Your task to perform on an android device: Install the ESPN app Image 0: 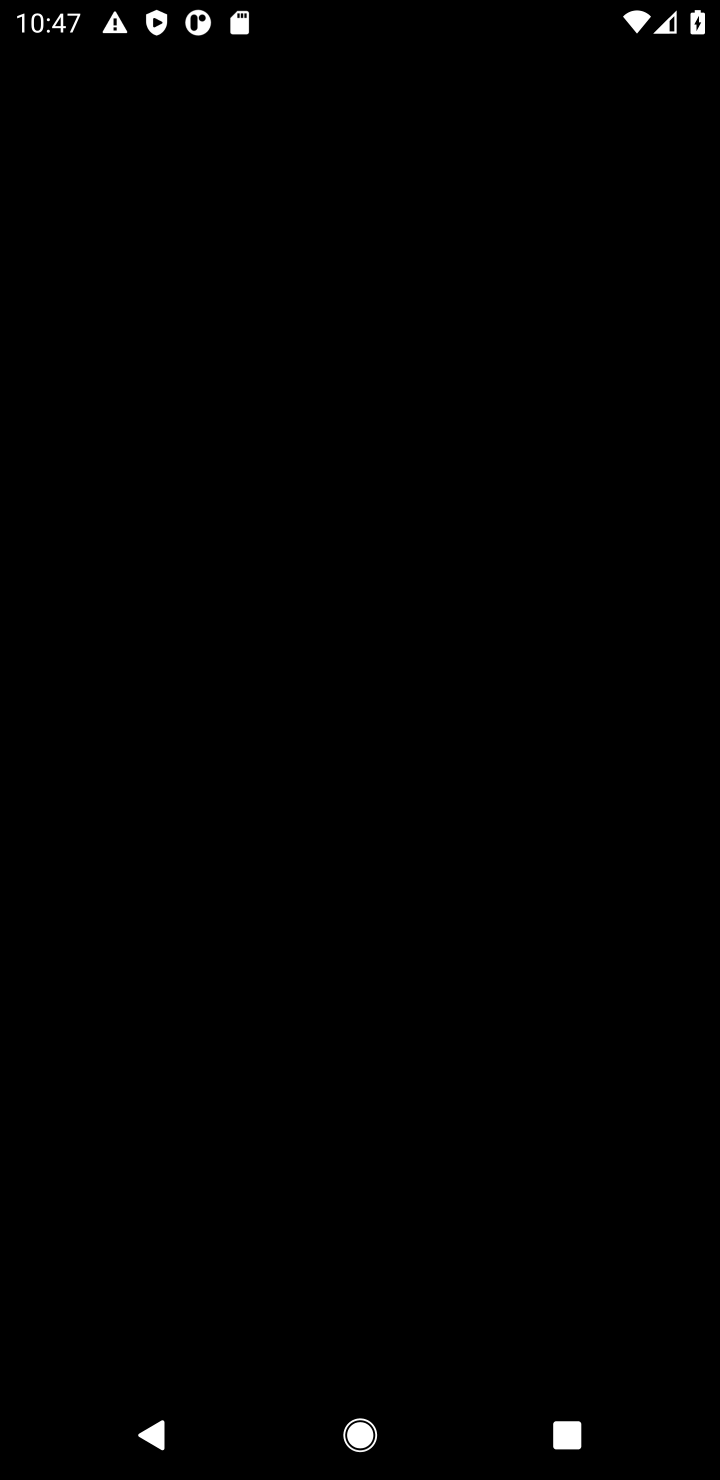
Step 0: click (40, 88)
Your task to perform on an android device: Install the ESPN app Image 1: 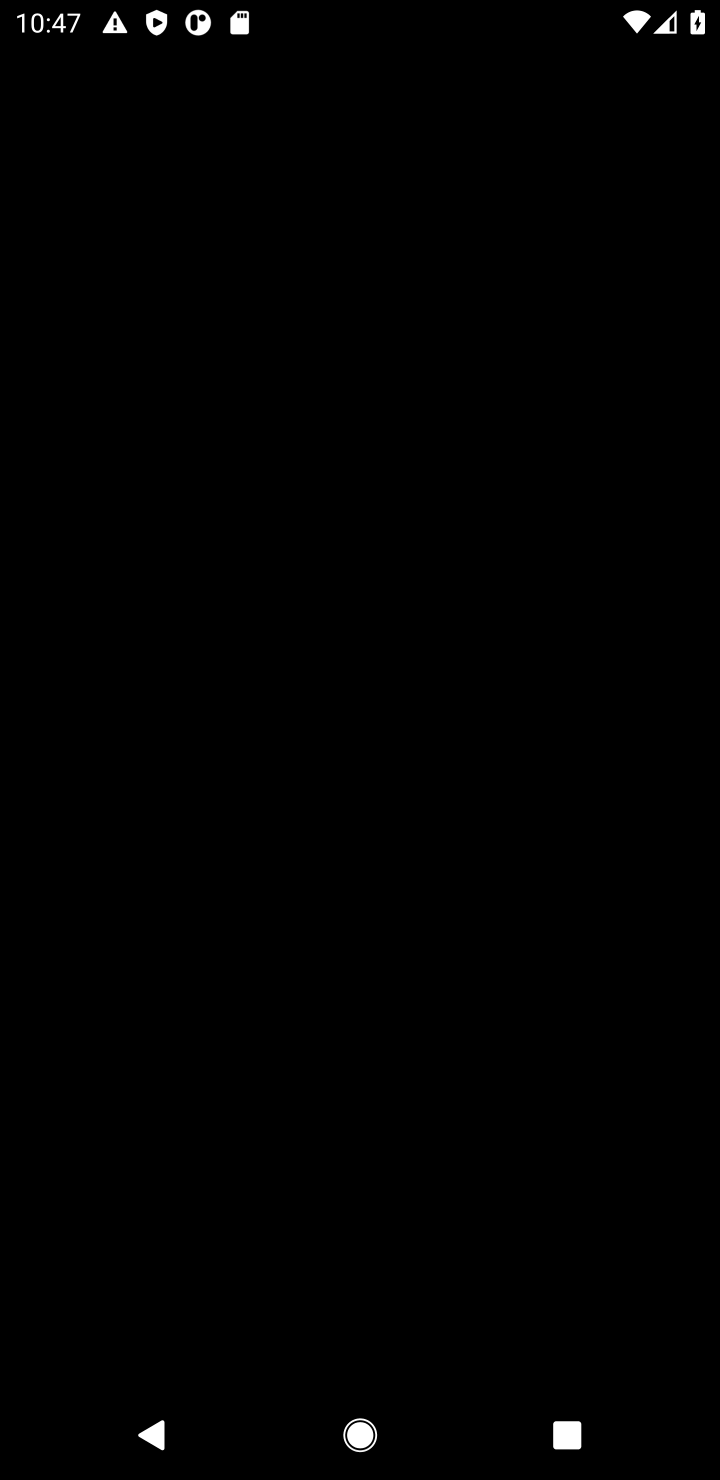
Step 1: press home button
Your task to perform on an android device: Install the ESPN app Image 2: 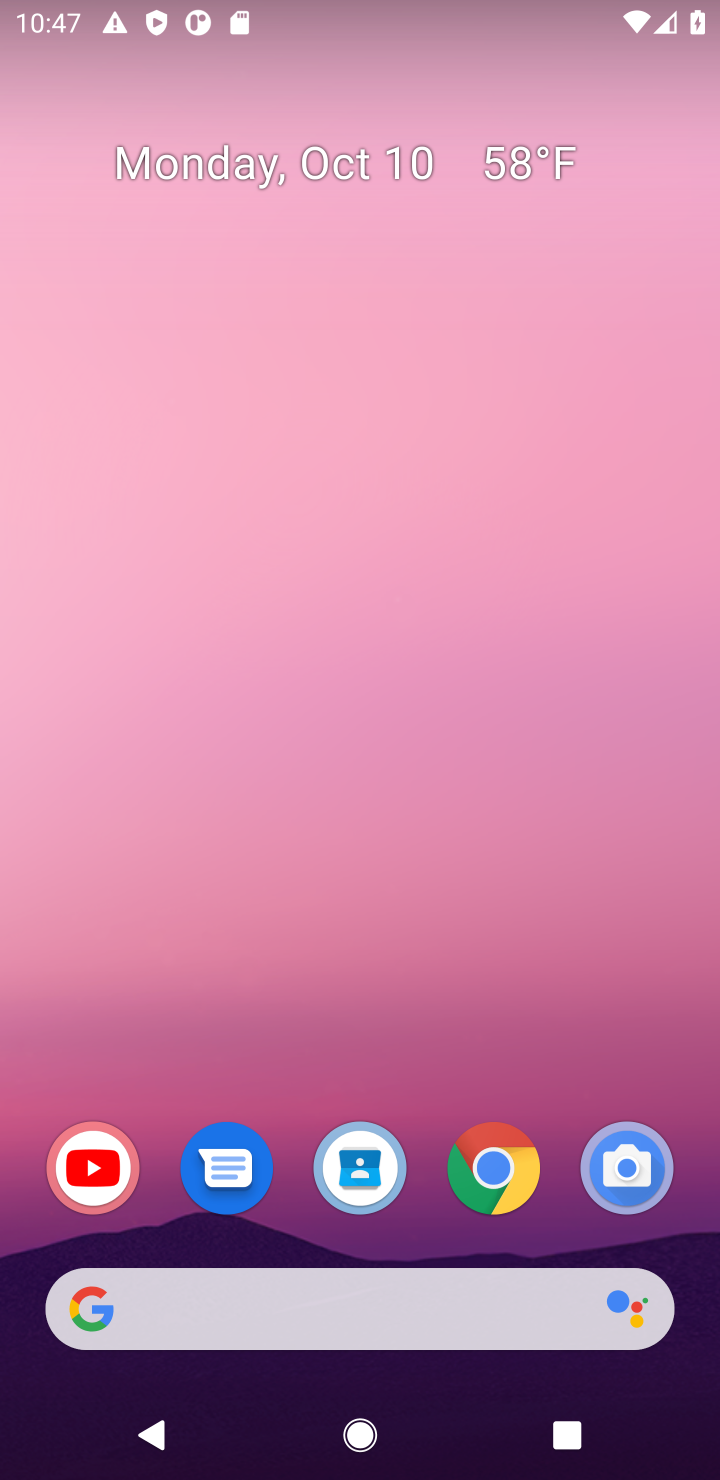
Step 2: drag from (326, 919) to (295, 344)
Your task to perform on an android device: Install the ESPN app Image 3: 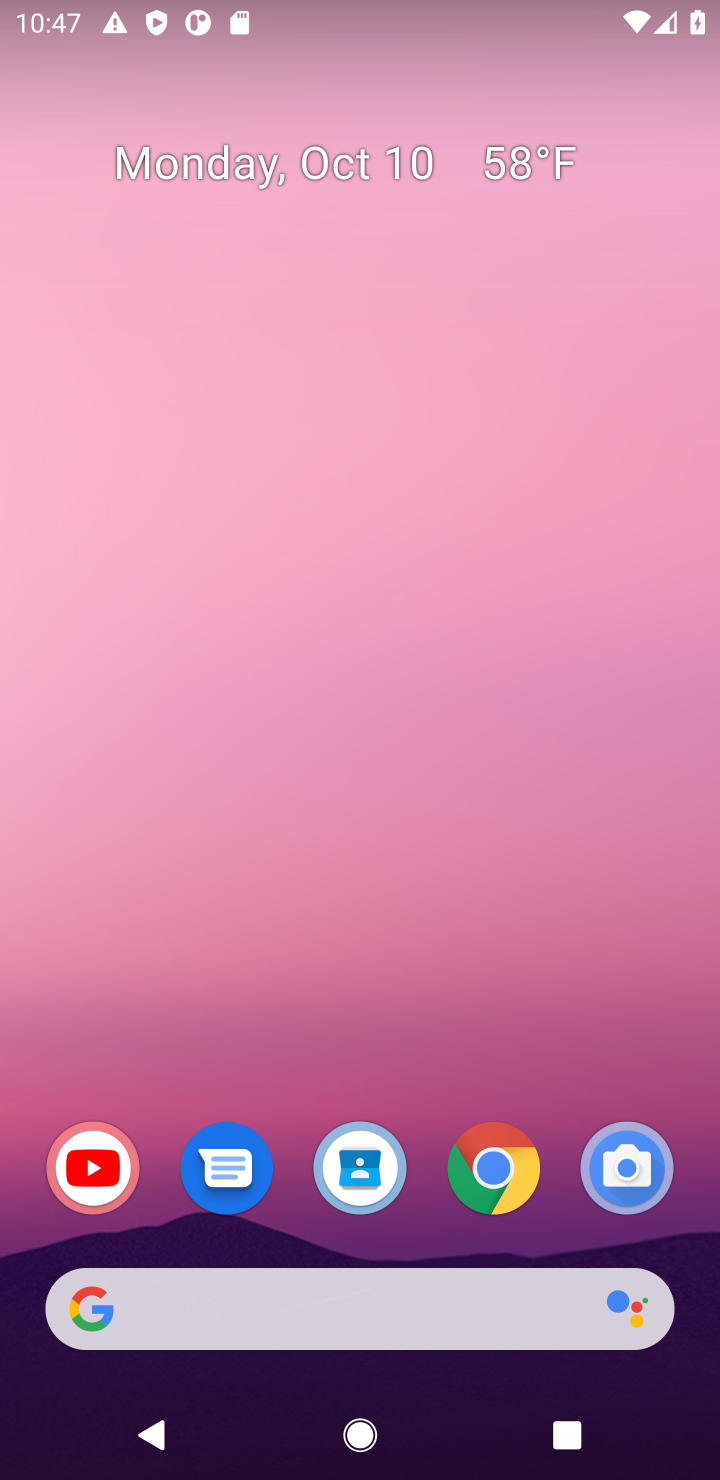
Step 3: drag from (424, 870) to (459, 200)
Your task to perform on an android device: Install the ESPN app Image 4: 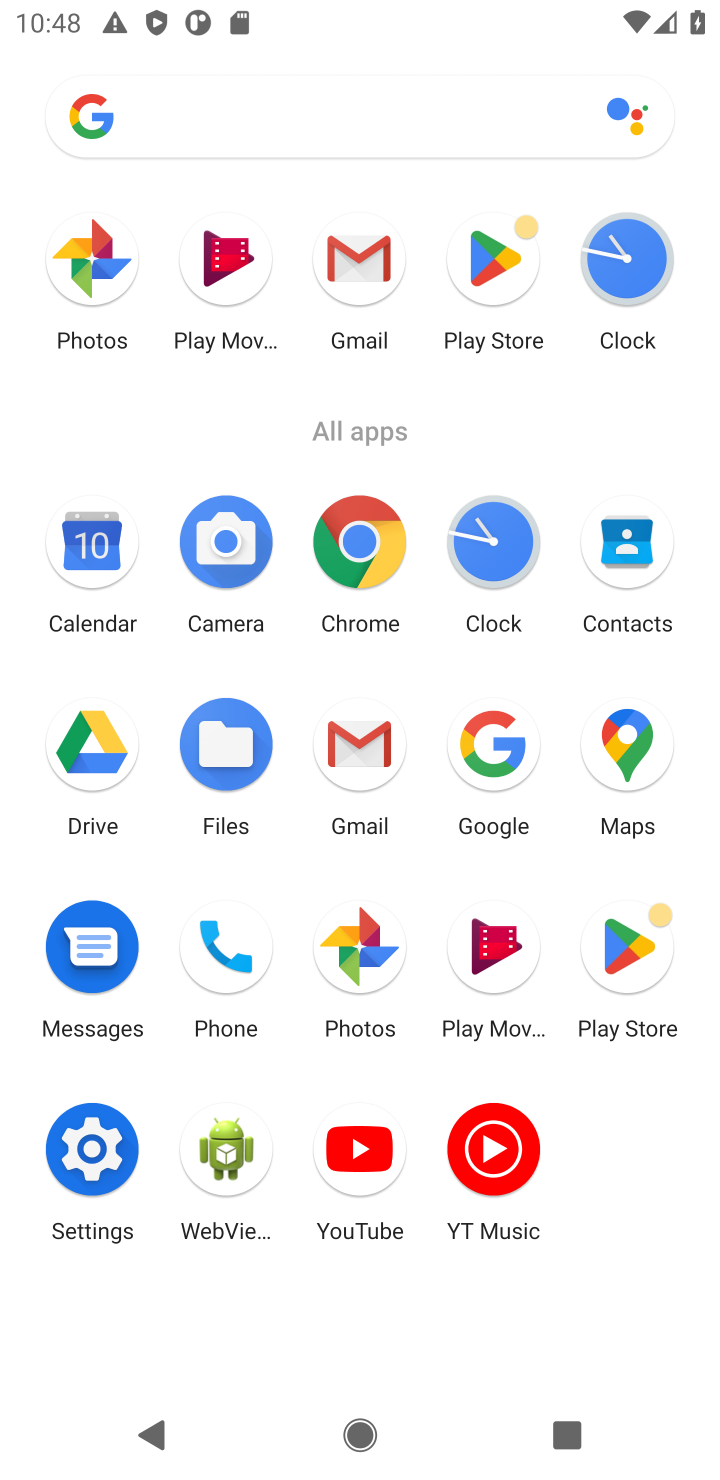
Step 4: click (482, 273)
Your task to perform on an android device: Install the ESPN app Image 5: 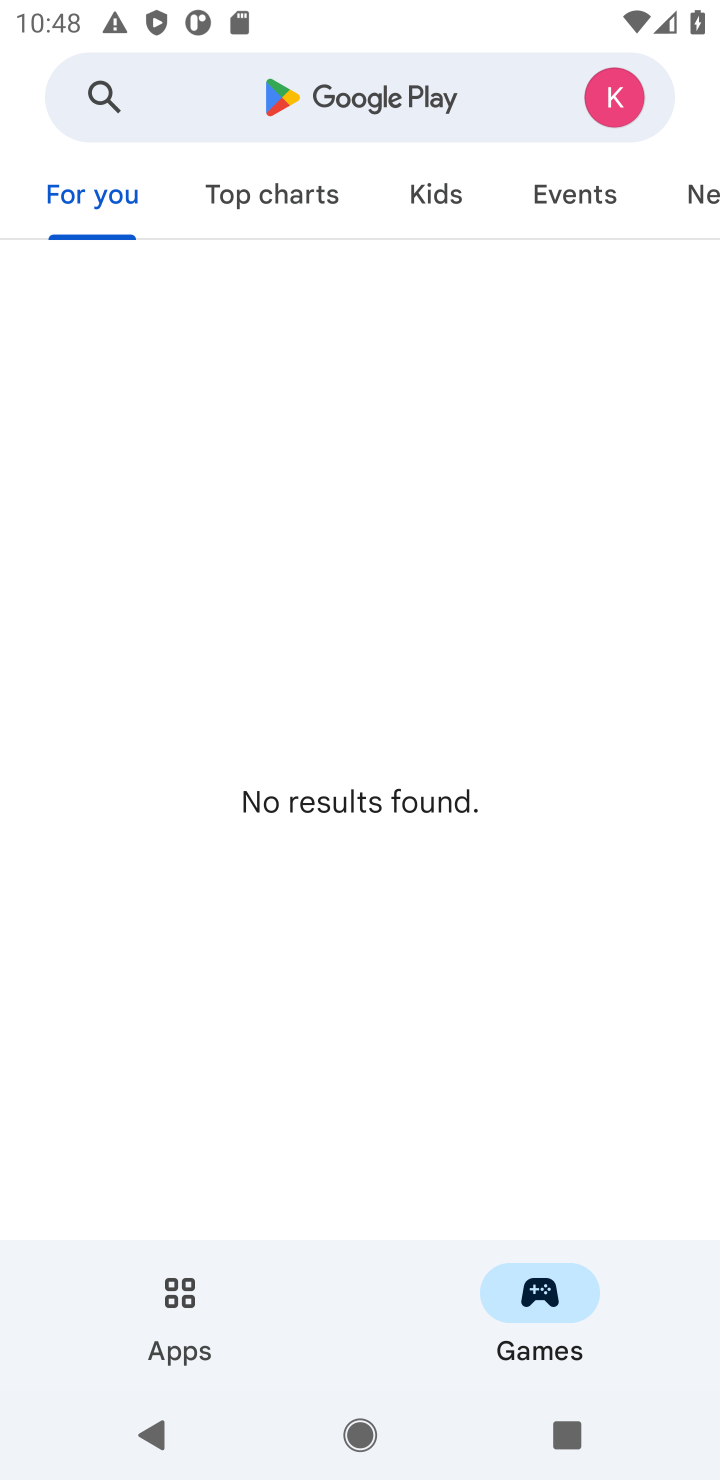
Step 5: click (313, 95)
Your task to perform on an android device: Install the ESPN app Image 6: 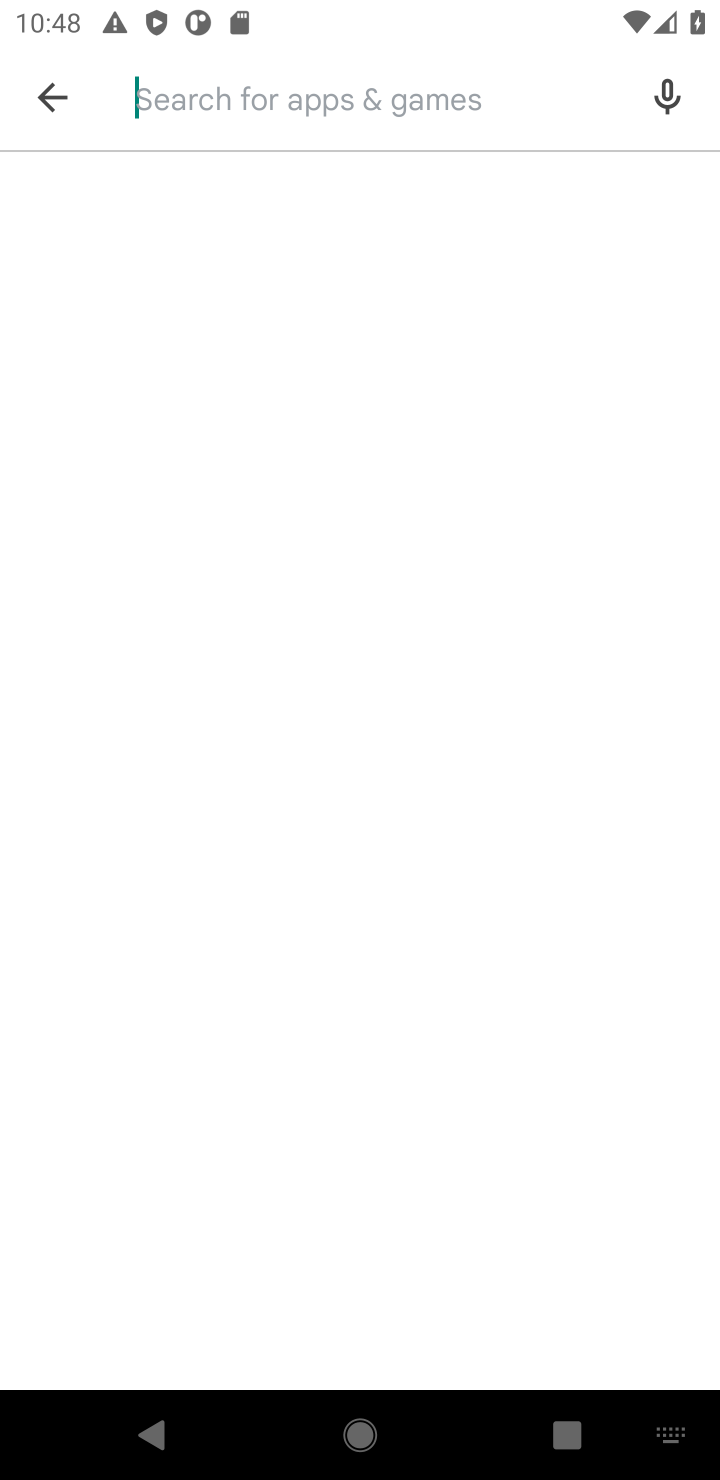
Step 6: type "ESPN app"
Your task to perform on an android device: Install the ESPN app Image 7: 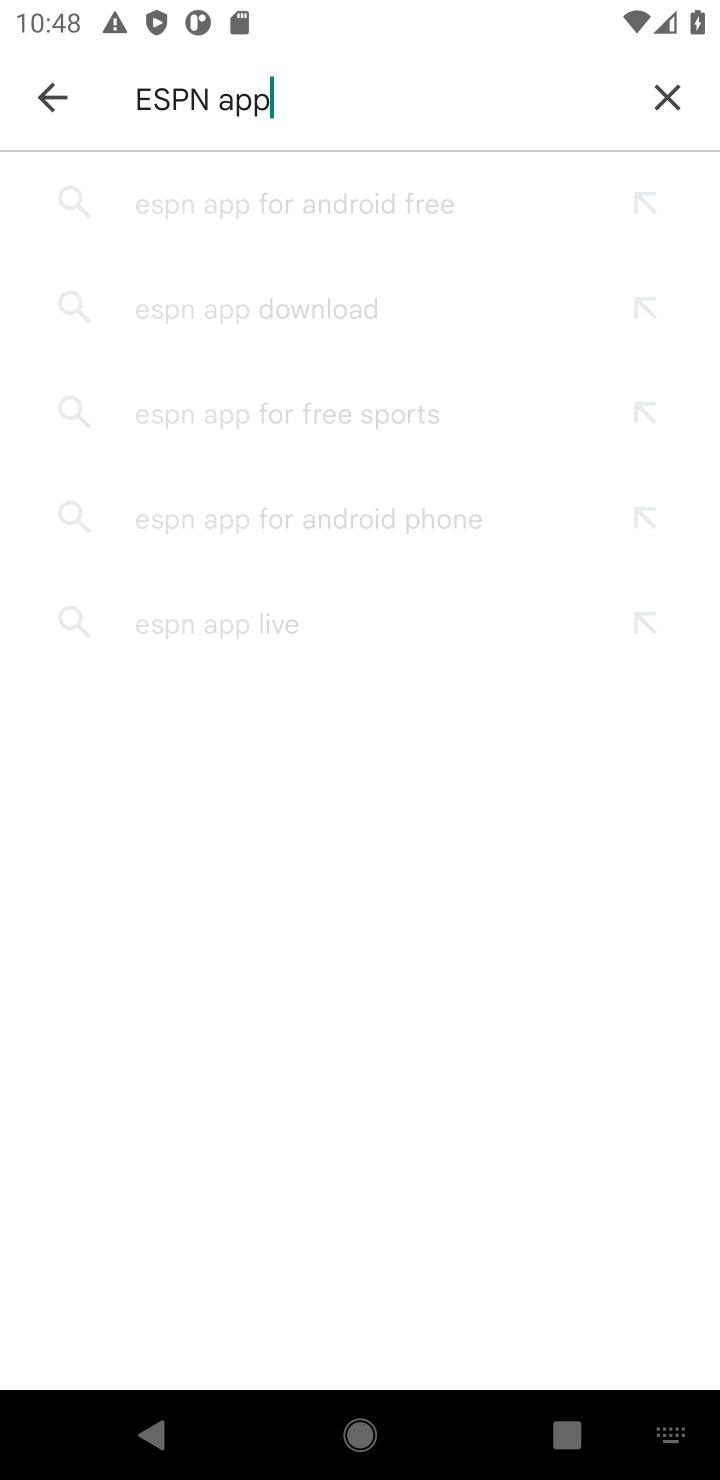
Step 7: type ""
Your task to perform on an android device: Install the ESPN app Image 8: 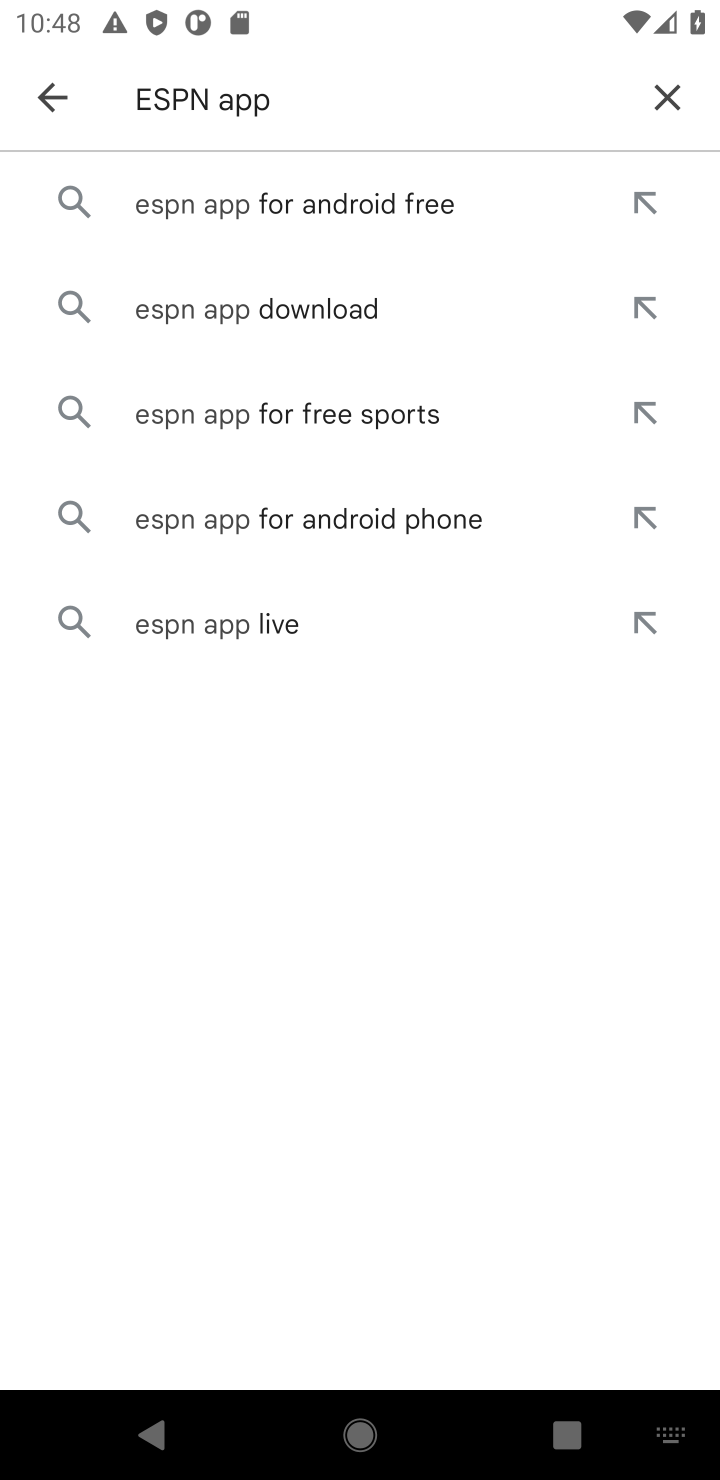
Step 8: click (445, 301)
Your task to perform on an android device: Install the ESPN app Image 9: 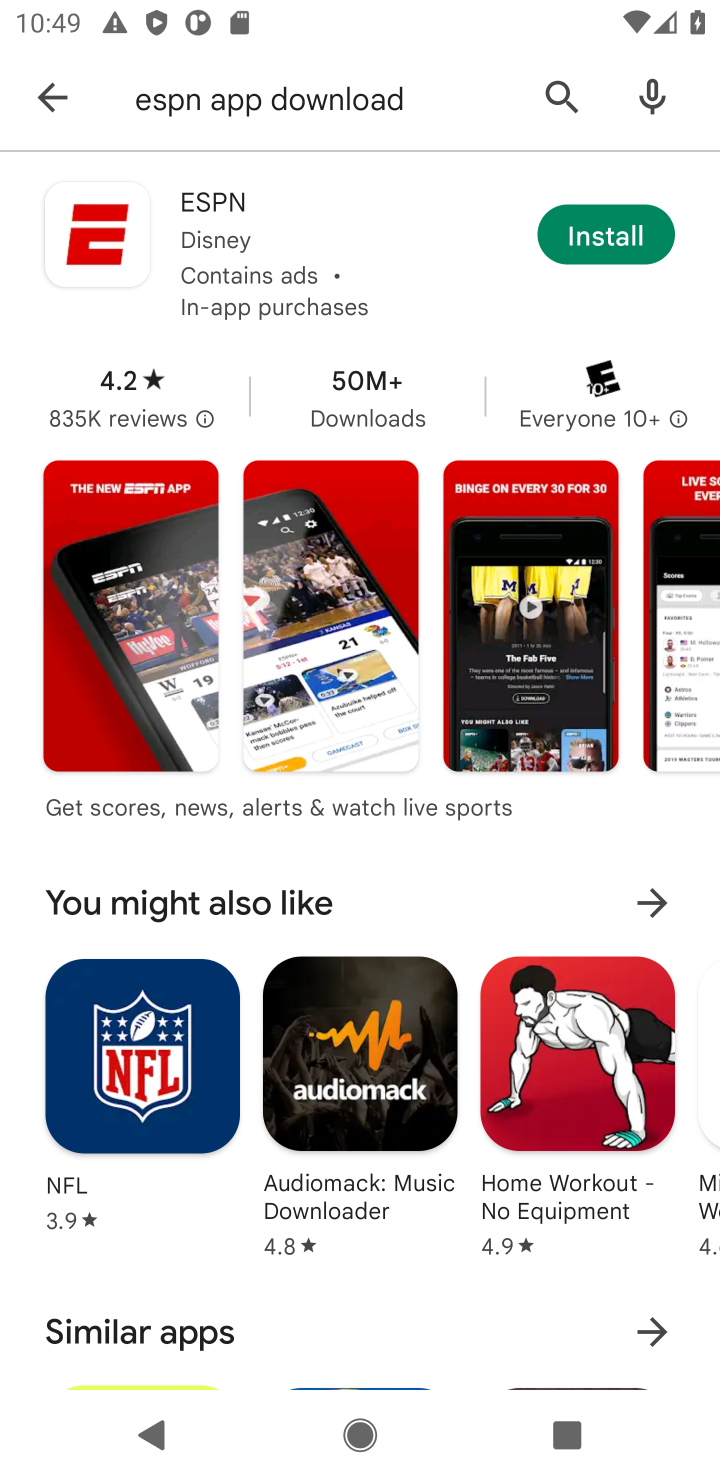
Step 9: click (573, 224)
Your task to perform on an android device: Install the ESPN app Image 10: 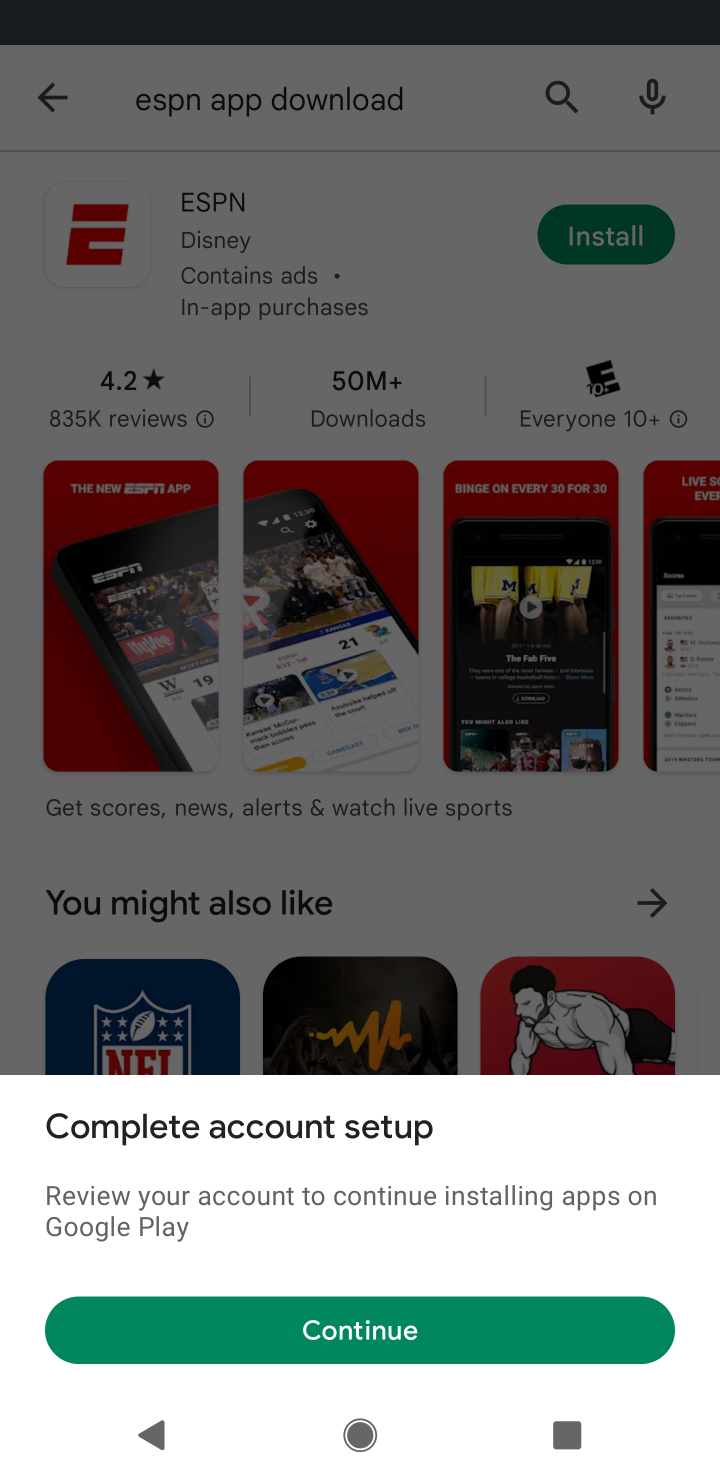
Step 10: click (321, 1316)
Your task to perform on an android device: Install the ESPN app Image 11: 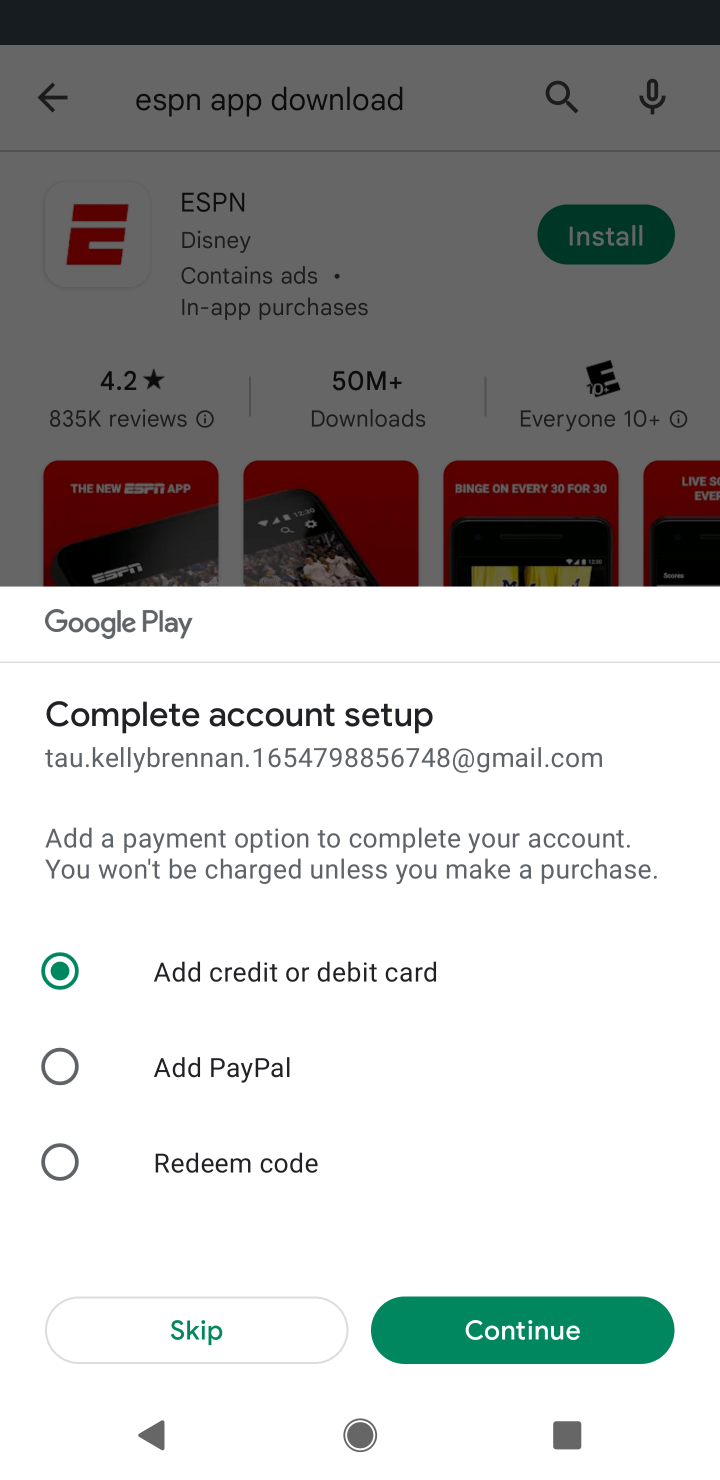
Step 11: click (313, 1313)
Your task to perform on an android device: Install the ESPN app Image 12: 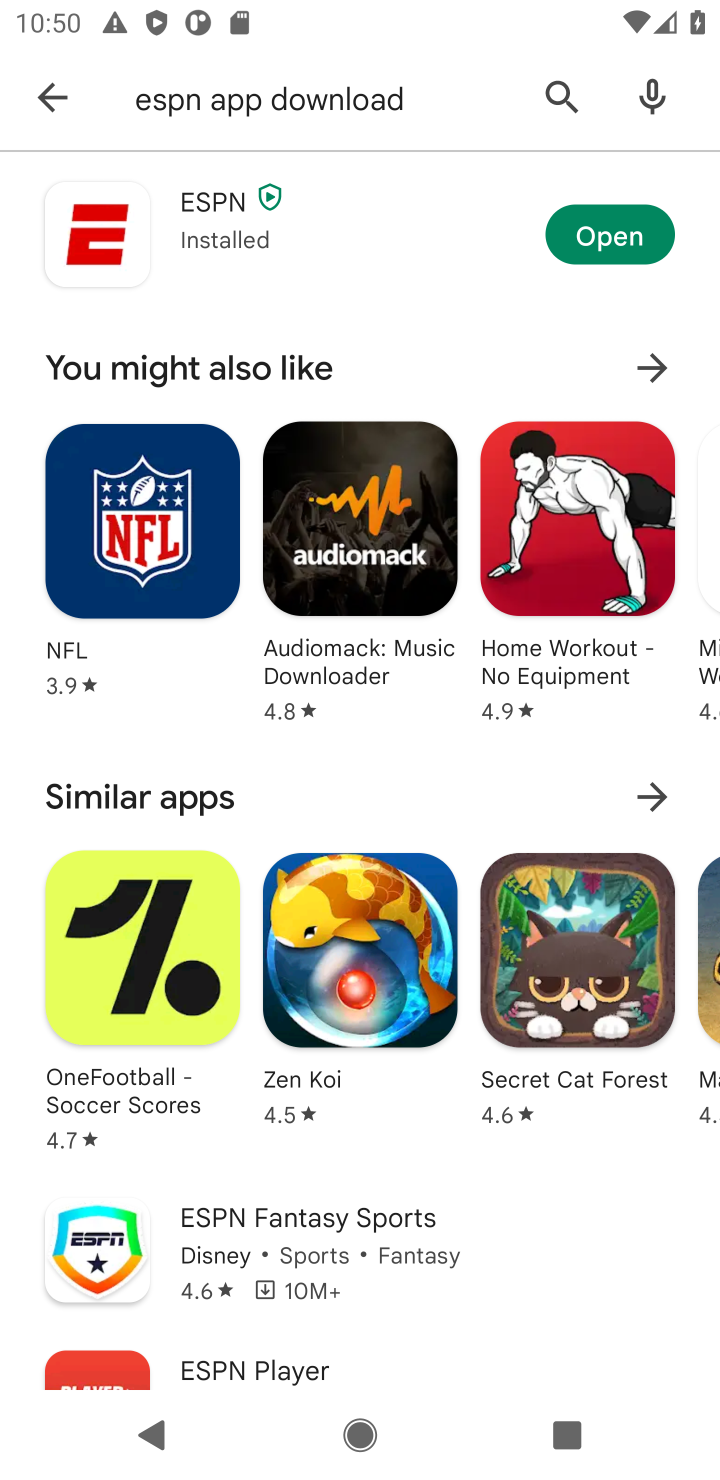
Step 12: task complete